Your task to perform on an android device: Add "usb-a" to the cart on newegg.com, then select checkout. Image 0: 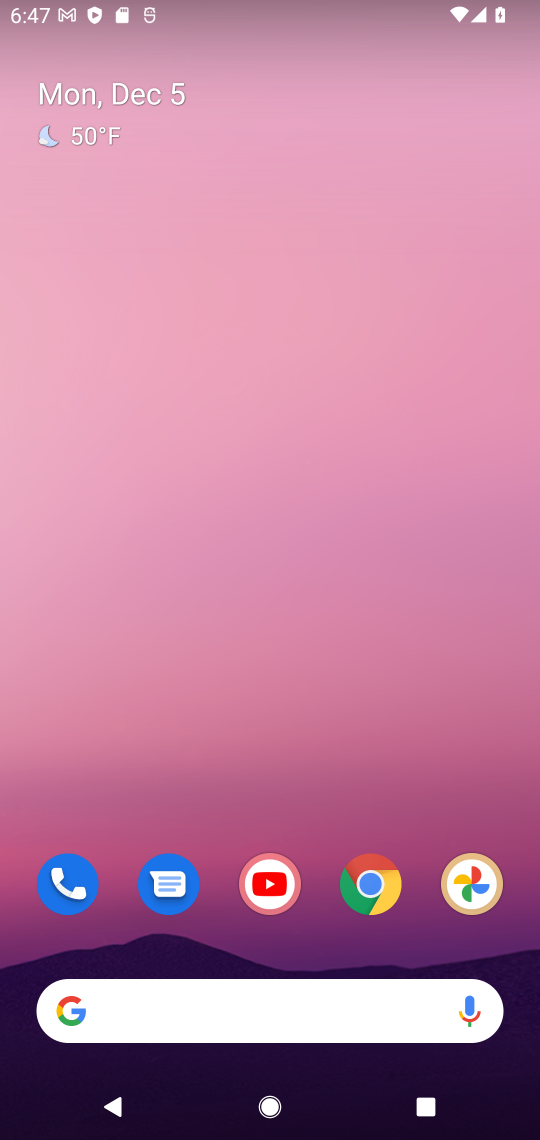
Step 0: click (367, 867)
Your task to perform on an android device: Add "usb-a" to the cart on newegg.com, then select checkout. Image 1: 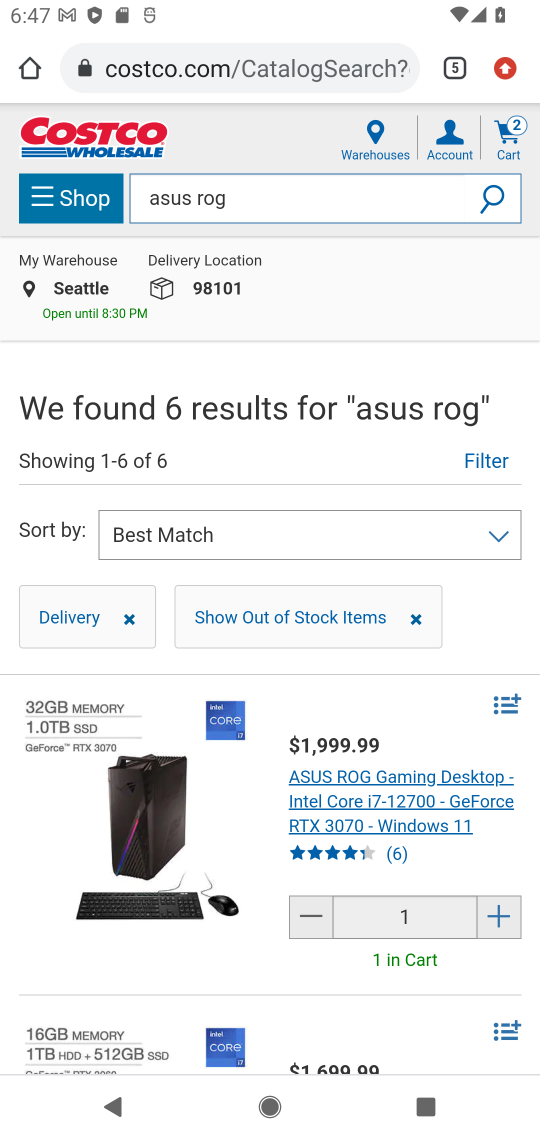
Step 1: click (450, 71)
Your task to perform on an android device: Add "usb-a" to the cart on newegg.com, then select checkout. Image 2: 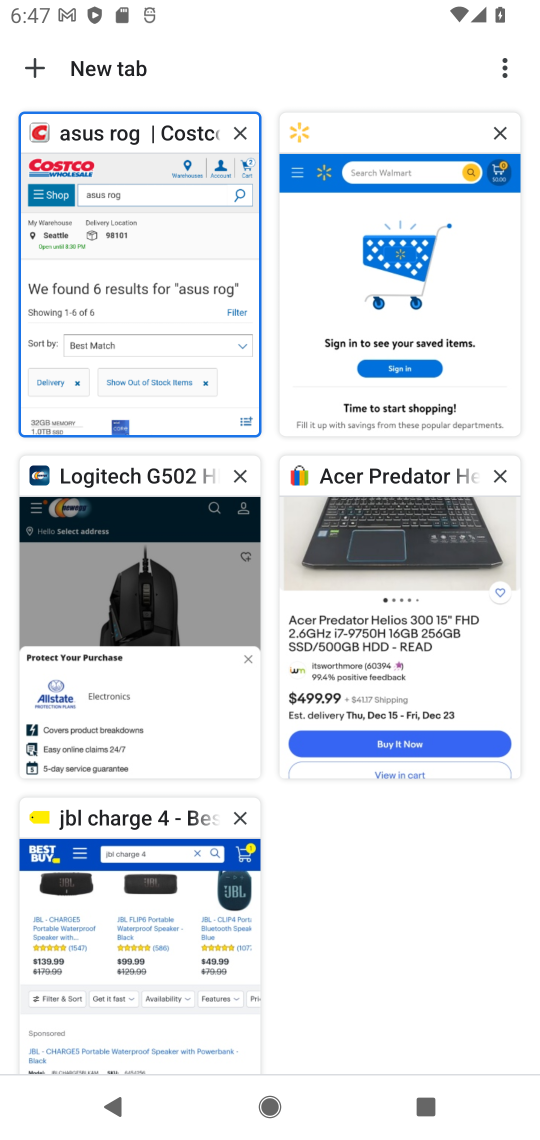
Step 2: click (190, 678)
Your task to perform on an android device: Add "usb-a" to the cart on newegg.com, then select checkout. Image 3: 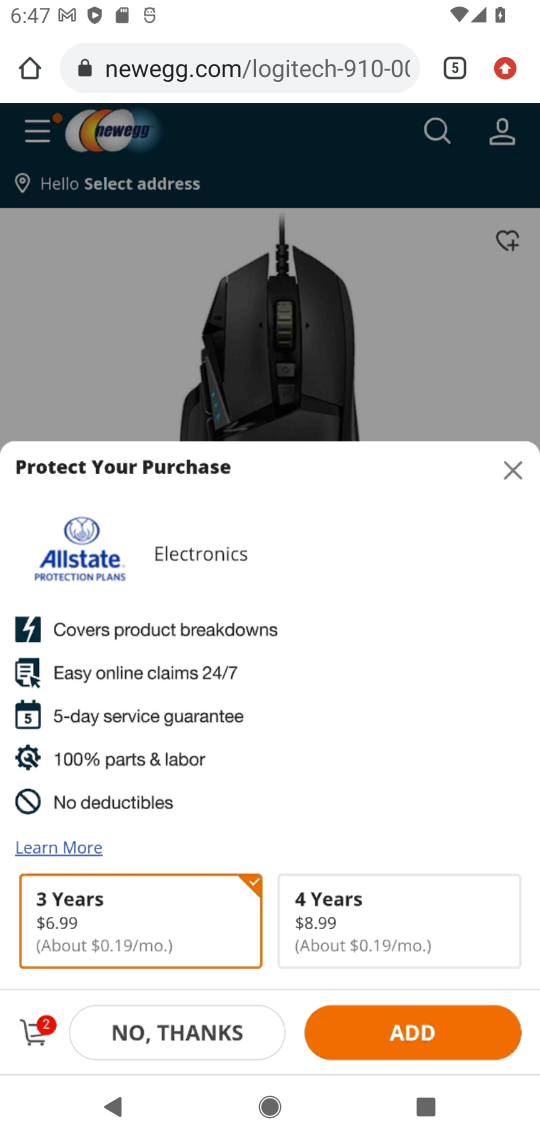
Step 3: click (517, 472)
Your task to perform on an android device: Add "usb-a" to the cart on newegg.com, then select checkout. Image 4: 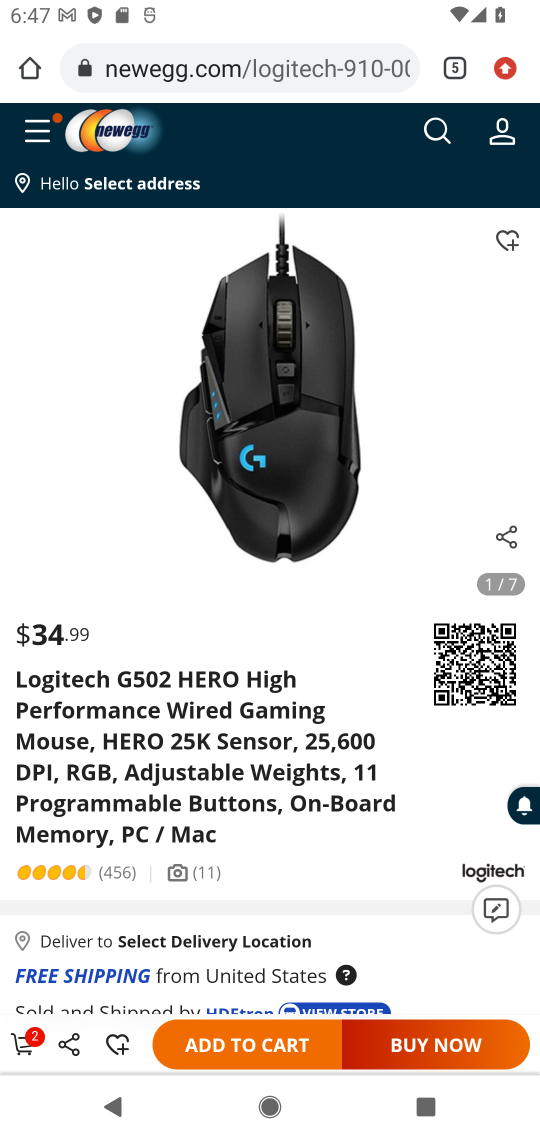
Step 4: click (441, 125)
Your task to perform on an android device: Add "usb-a" to the cart on newegg.com, then select checkout. Image 5: 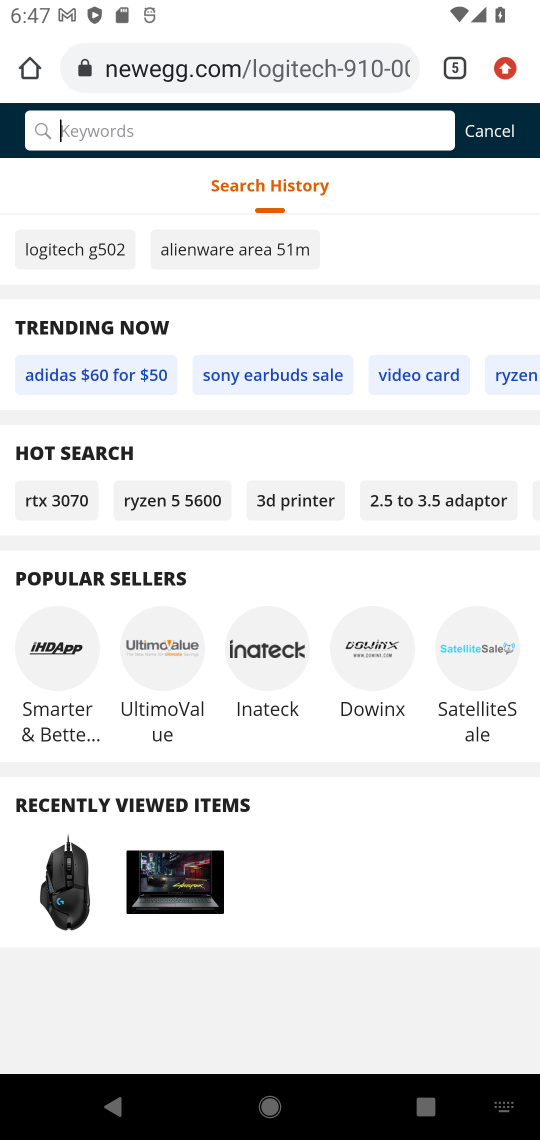
Step 5: type "usb-a"
Your task to perform on an android device: Add "usb-a" to the cart on newegg.com, then select checkout. Image 6: 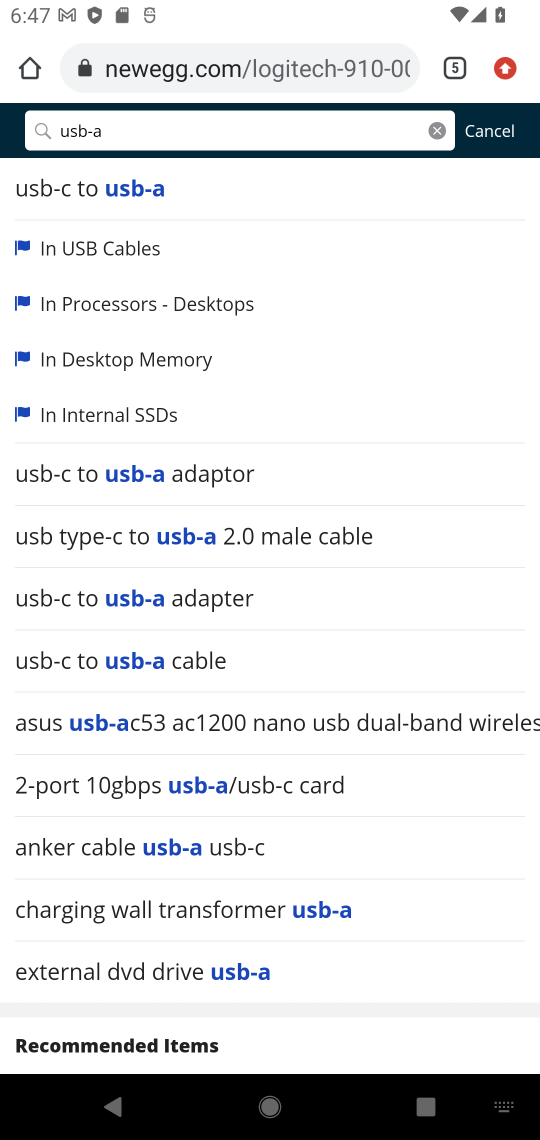
Step 6: click (126, 256)
Your task to perform on an android device: Add "usb-a" to the cart on newegg.com, then select checkout. Image 7: 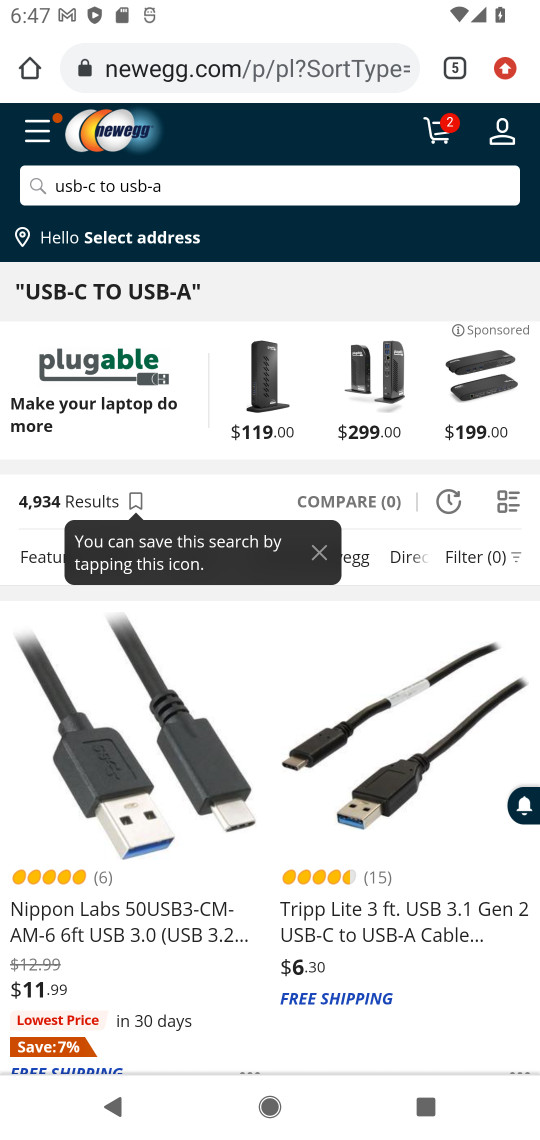
Step 7: task complete